Your task to perform on an android device: turn pop-ups on in chrome Image 0: 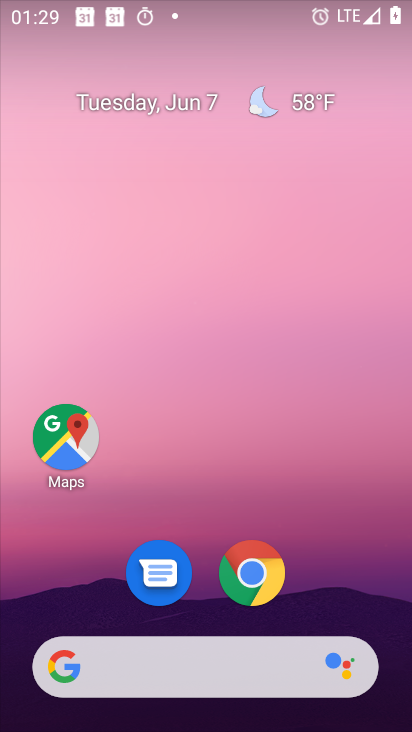
Step 0: click (245, 567)
Your task to perform on an android device: turn pop-ups on in chrome Image 1: 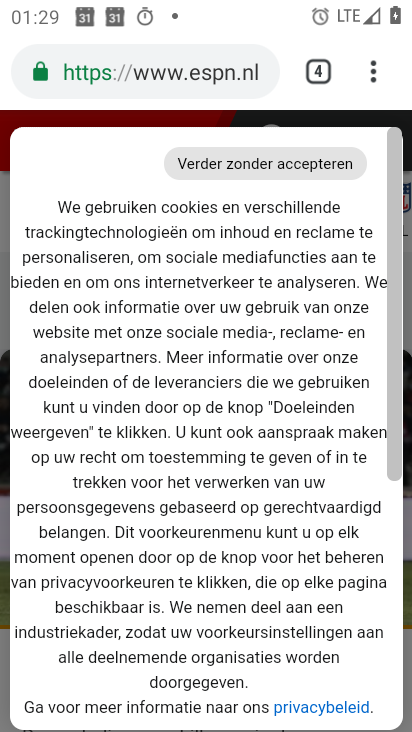
Step 1: click (378, 65)
Your task to perform on an android device: turn pop-ups on in chrome Image 2: 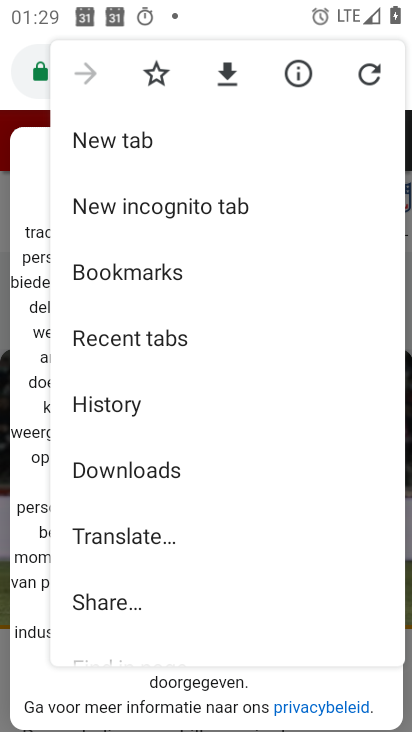
Step 2: drag from (223, 543) to (256, 167)
Your task to perform on an android device: turn pop-ups on in chrome Image 3: 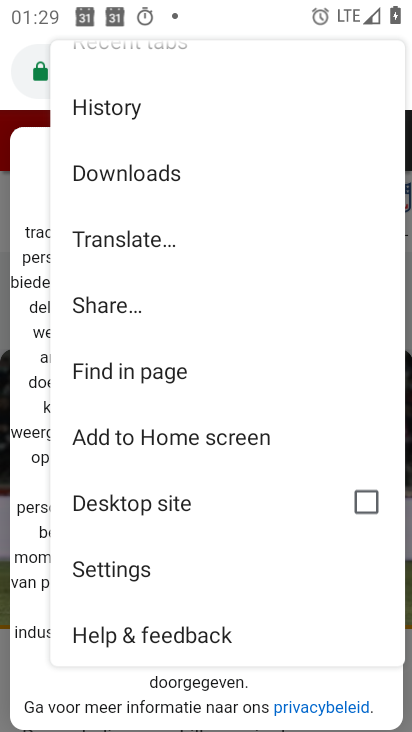
Step 3: click (127, 562)
Your task to perform on an android device: turn pop-ups on in chrome Image 4: 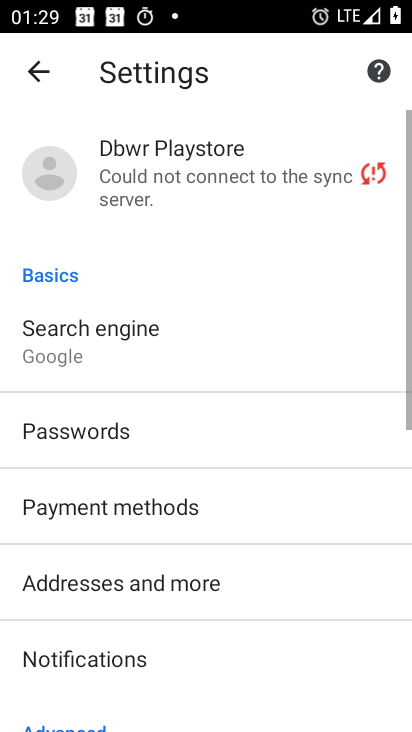
Step 4: drag from (276, 584) to (296, 269)
Your task to perform on an android device: turn pop-ups on in chrome Image 5: 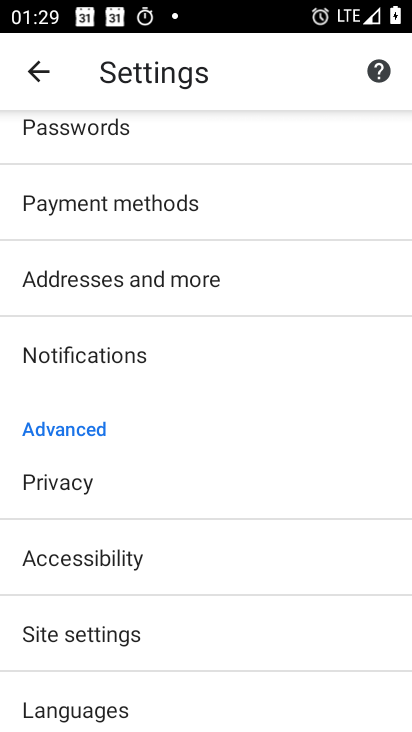
Step 5: click (133, 626)
Your task to perform on an android device: turn pop-ups on in chrome Image 6: 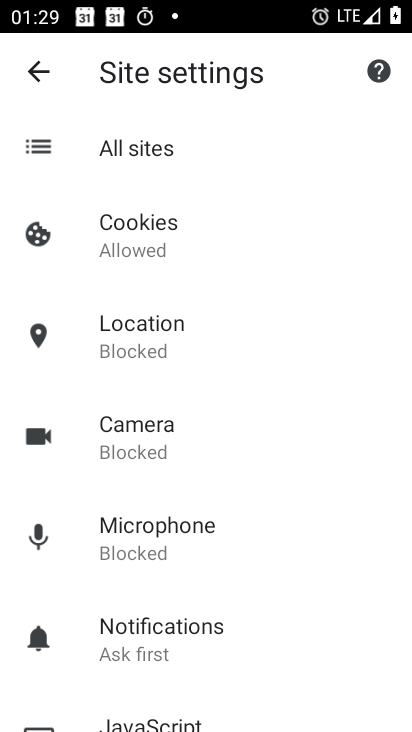
Step 6: drag from (201, 622) to (256, 200)
Your task to perform on an android device: turn pop-ups on in chrome Image 7: 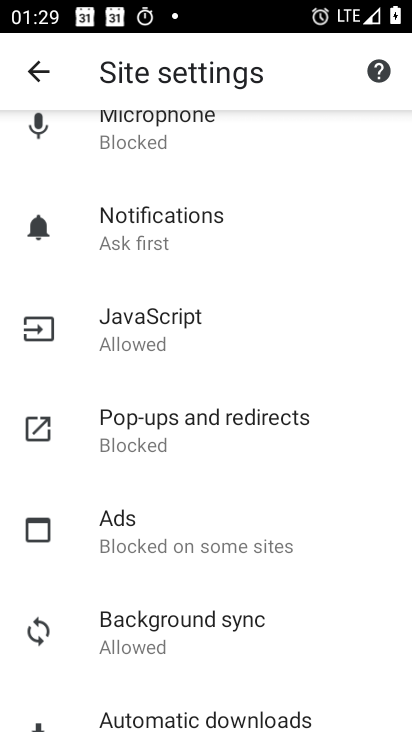
Step 7: click (149, 440)
Your task to perform on an android device: turn pop-ups on in chrome Image 8: 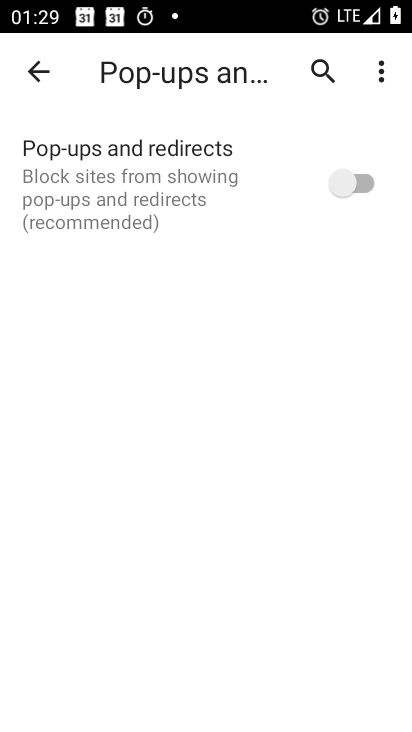
Step 8: click (351, 174)
Your task to perform on an android device: turn pop-ups on in chrome Image 9: 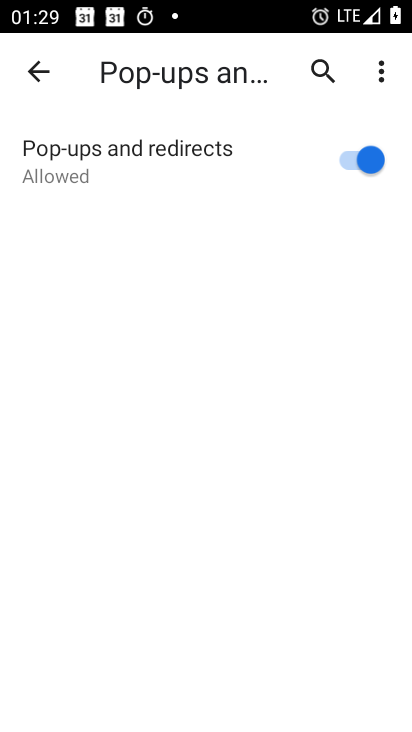
Step 9: task complete